Your task to perform on an android device: open wifi settings Image 0: 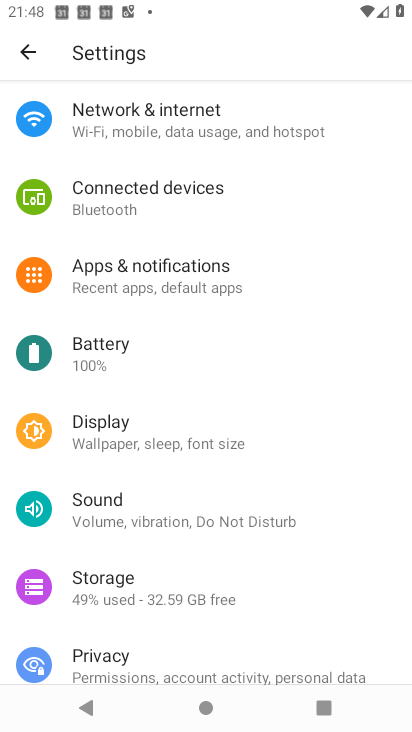
Step 0: click (176, 132)
Your task to perform on an android device: open wifi settings Image 1: 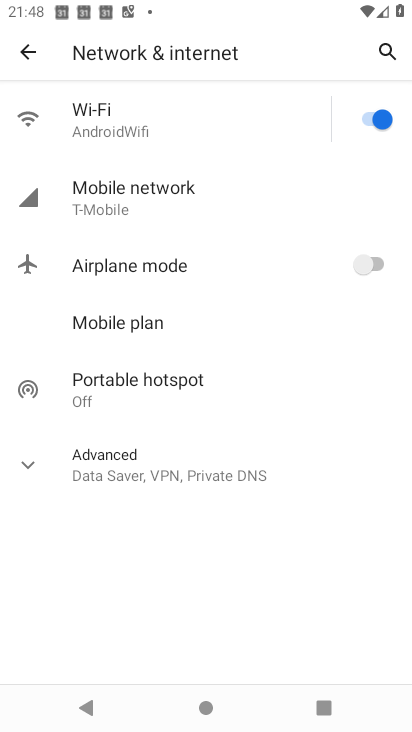
Step 1: click (141, 119)
Your task to perform on an android device: open wifi settings Image 2: 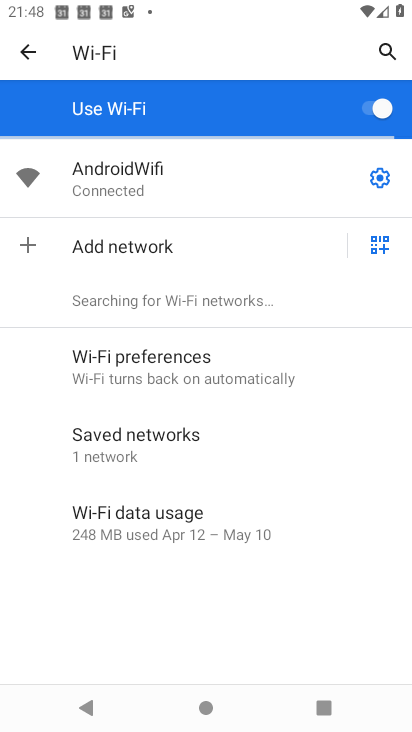
Step 2: click (378, 180)
Your task to perform on an android device: open wifi settings Image 3: 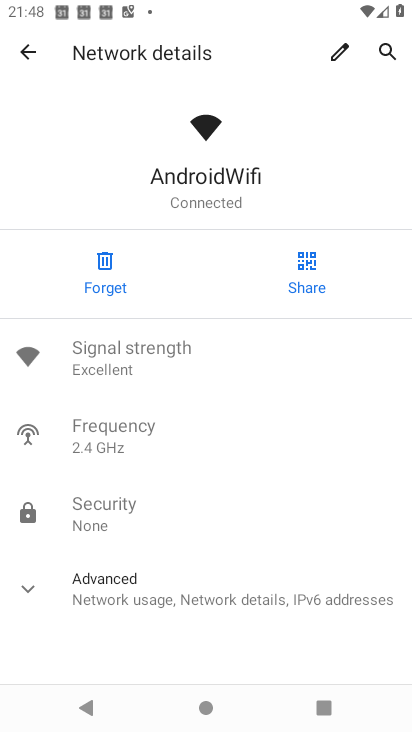
Step 3: click (104, 589)
Your task to perform on an android device: open wifi settings Image 4: 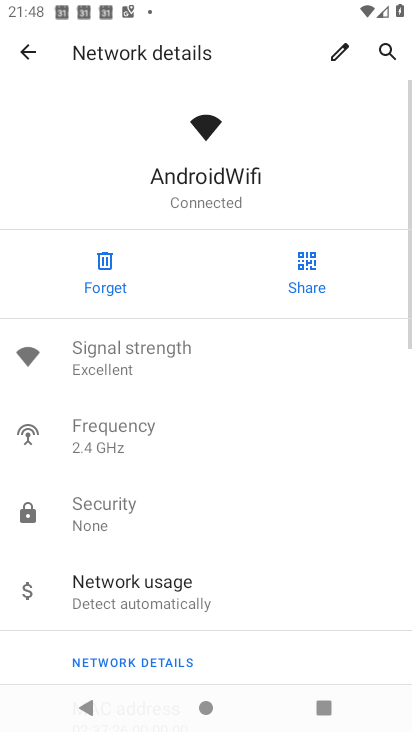
Step 4: task complete